Your task to perform on an android device: Open the phone app and click the voicemail tab. Image 0: 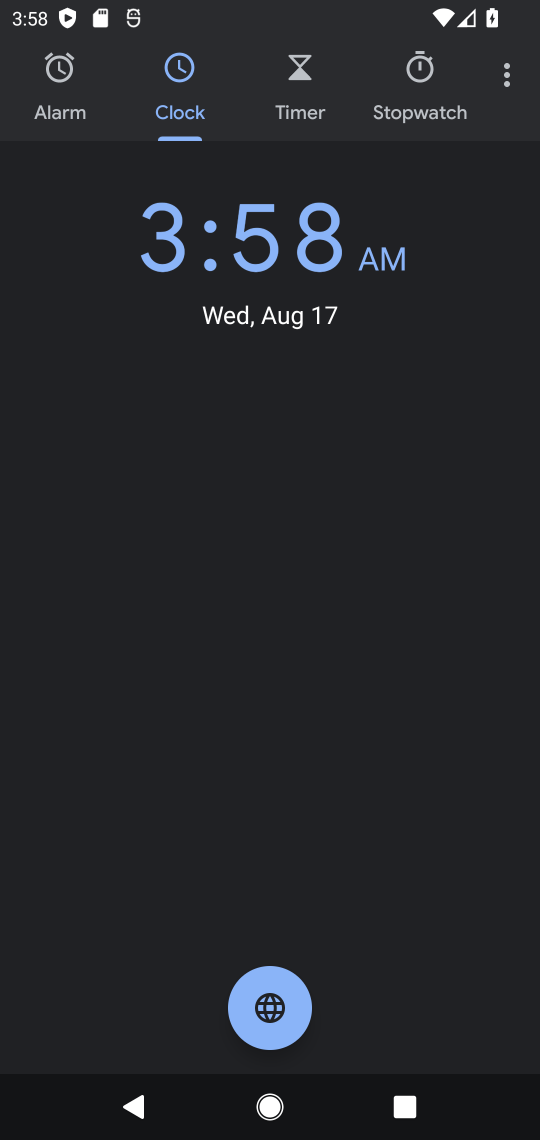
Step 0: press home button
Your task to perform on an android device: Open the phone app and click the voicemail tab. Image 1: 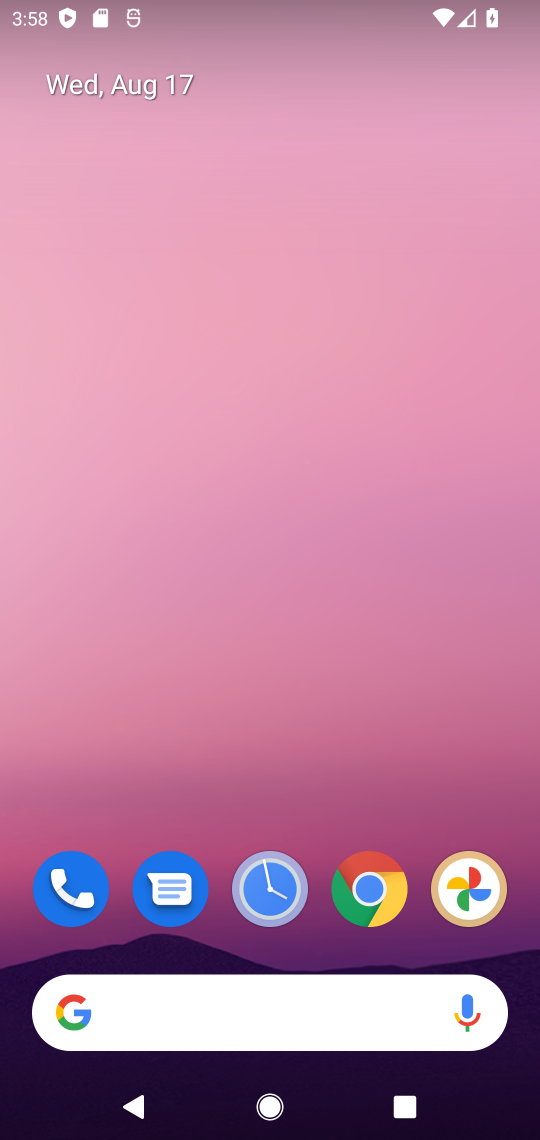
Step 1: drag from (284, 801) to (237, 91)
Your task to perform on an android device: Open the phone app and click the voicemail tab. Image 2: 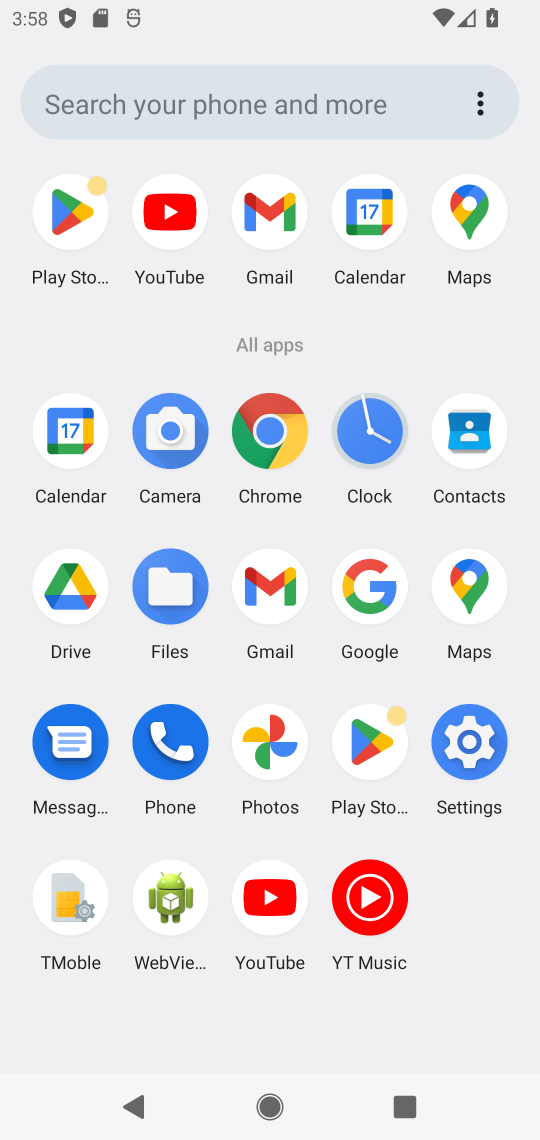
Step 2: click (170, 739)
Your task to perform on an android device: Open the phone app and click the voicemail tab. Image 3: 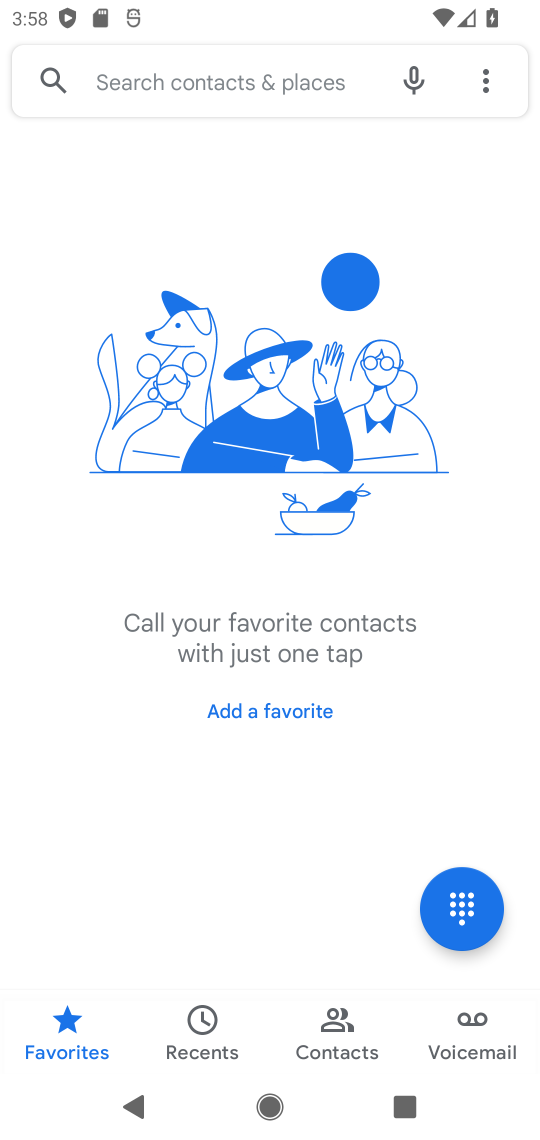
Step 3: click (460, 1026)
Your task to perform on an android device: Open the phone app and click the voicemail tab. Image 4: 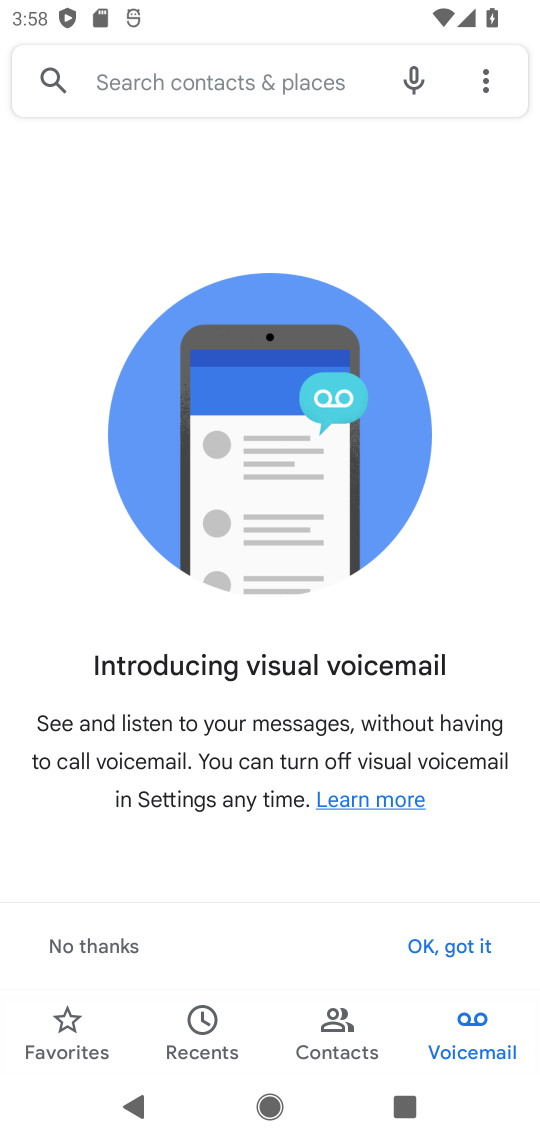
Step 4: click (457, 949)
Your task to perform on an android device: Open the phone app and click the voicemail tab. Image 5: 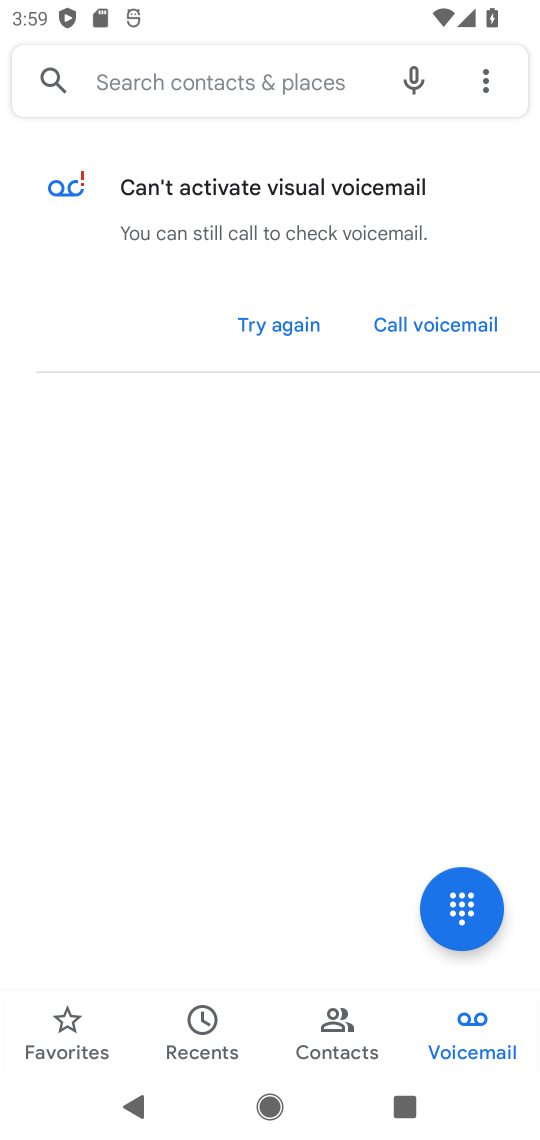
Step 5: task complete